Your task to perform on an android device: open app "Roku - Official Remote Control" (install if not already installed) Image 0: 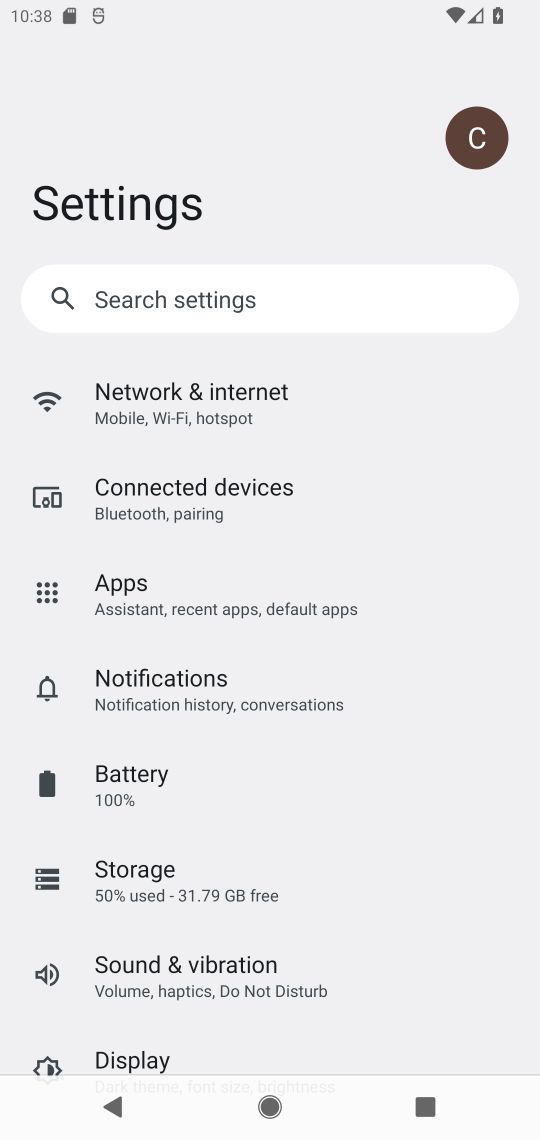
Step 0: press home button
Your task to perform on an android device: open app "Roku - Official Remote Control" (install if not already installed) Image 1: 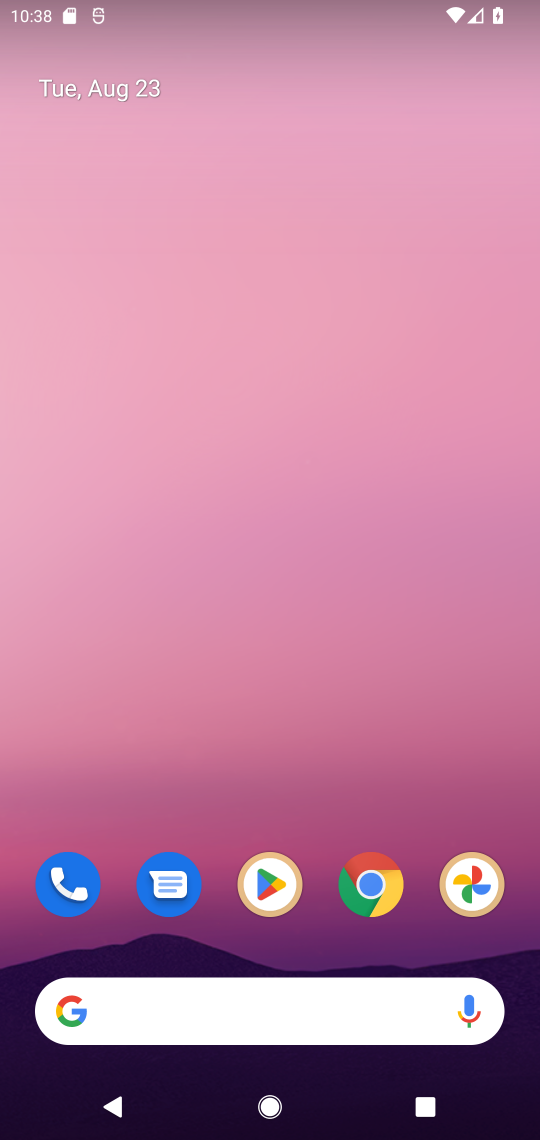
Step 1: click (270, 885)
Your task to perform on an android device: open app "Roku - Official Remote Control" (install if not already installed) Image 2: 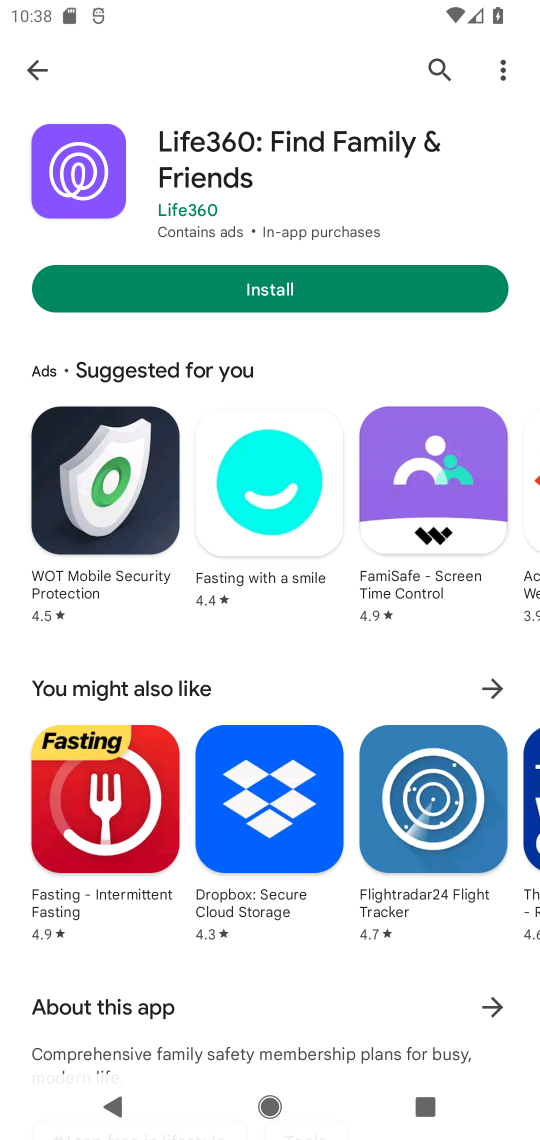
Step 2: click (432, 70)
Your task to perform on an android device: open app "Roku - Official Remote Control" (install if not already installed) Image 3: 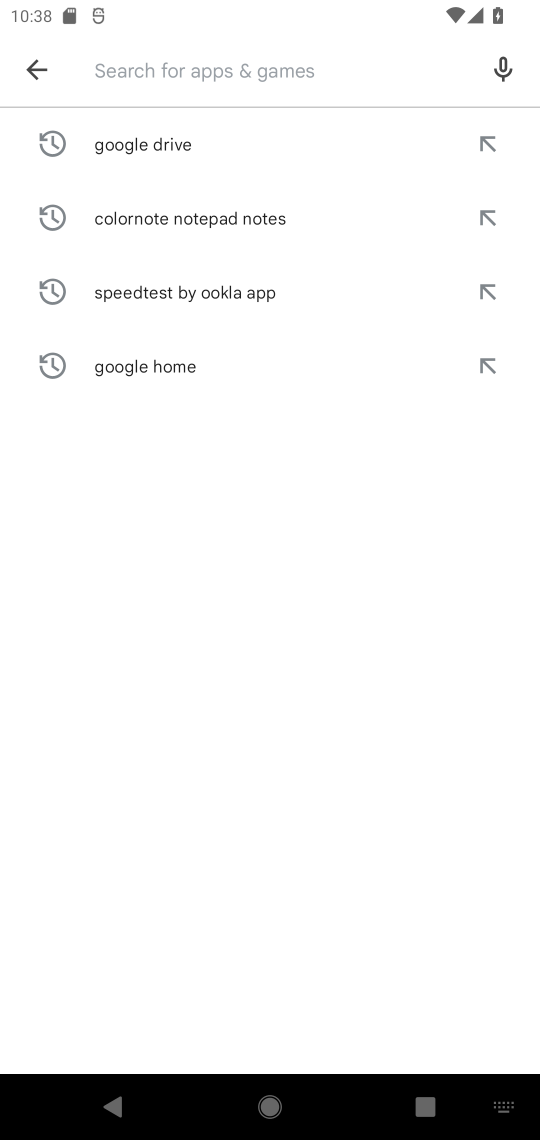
Step 3: type "Roku - Official Remote Control"
Your task to perform on an android device: open app "Roku - Official Remote Control" (install if not already installed) Image 4: 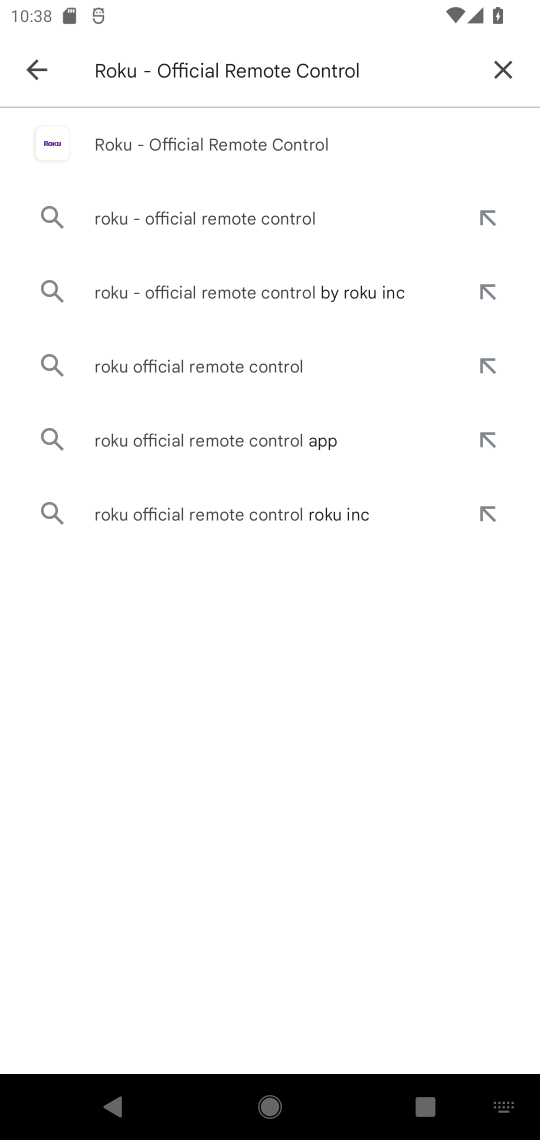
Step 4: click (130, 133)
Your task to perform on an android device: open app "Roku - Official Remote Control" (install if not already installed) Image 5: 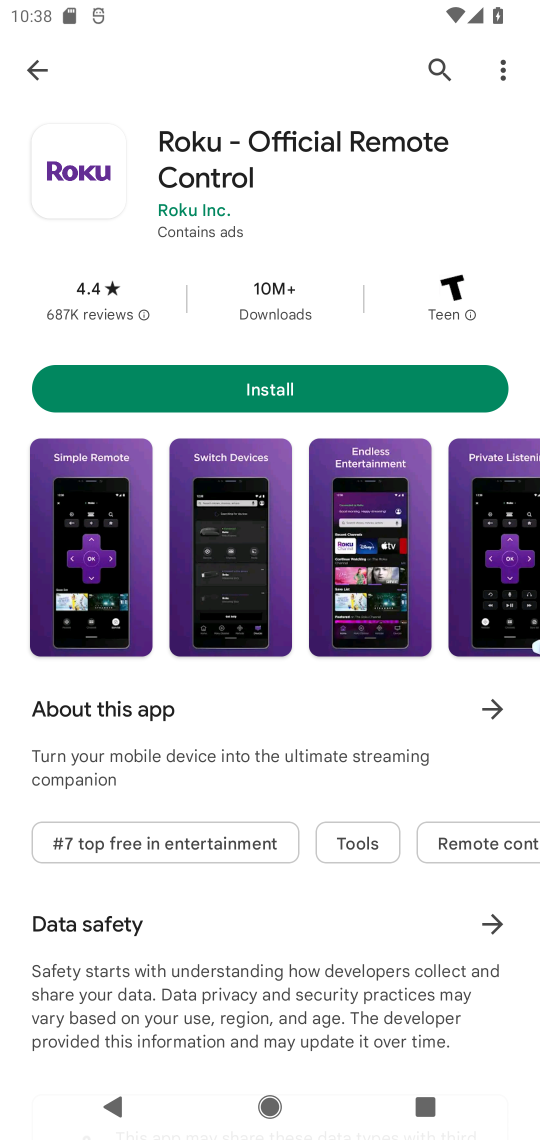
Step 5: click (271, 386)
Your task to perform on an android device: open app "Roku - Official Remote Control" (install if not already installed) Image 6: 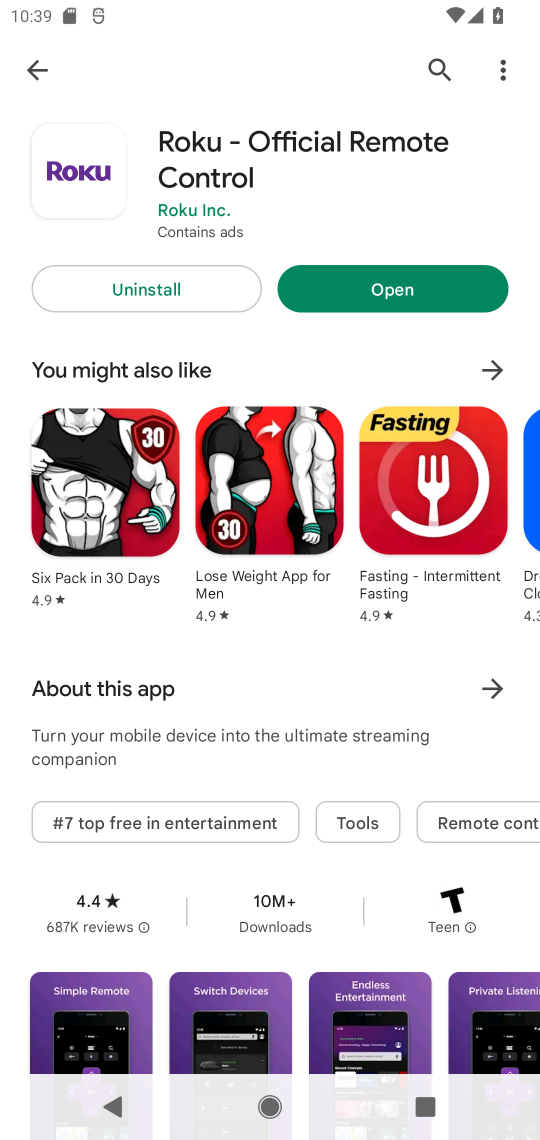
Step 6: click (389, 288)
Your task to perform on an android device: open app "Roku - Official Remote Control" (install if not already installed) Image 7: 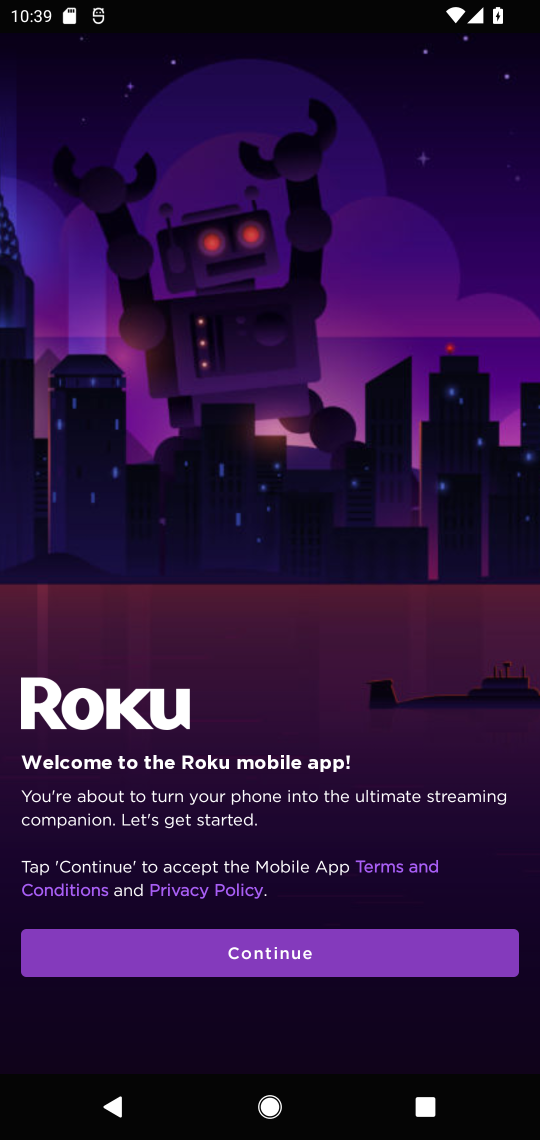
Step 7: task complete